Your task to perform on an android device: Open Google Chrome Image 0: 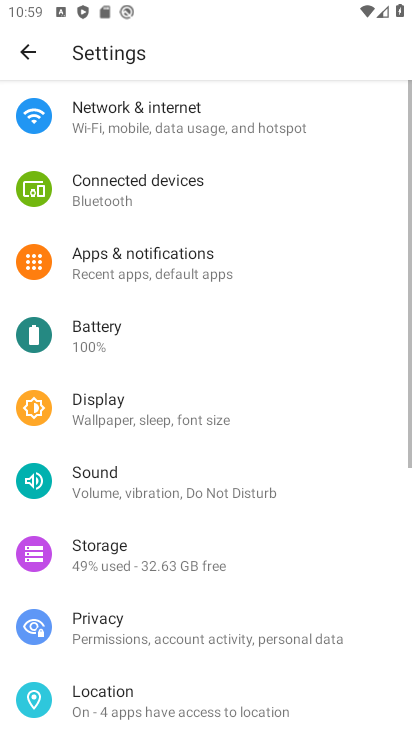
Step 0: press home button
Your task to perform on an android device: Open Google Chrome Image 1: 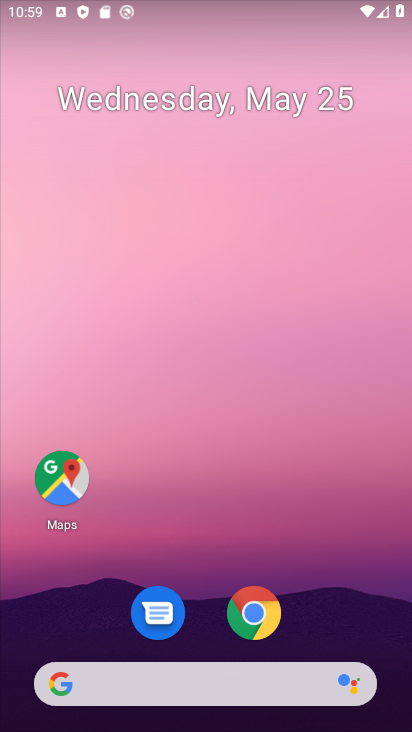
Step 1: click (258, 618)
Your task to perform on an android device: Open Google Chrome Image 2: 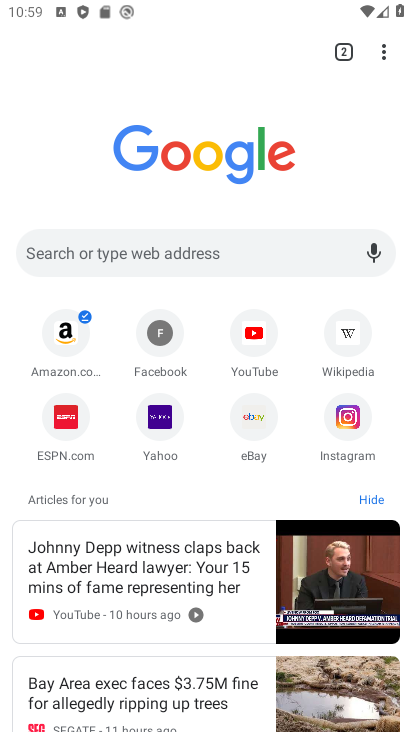
Step 2: task complete